Your task to perform on an android device: Open Google Chrome and click the shortcut for Amazon.com Image 0: 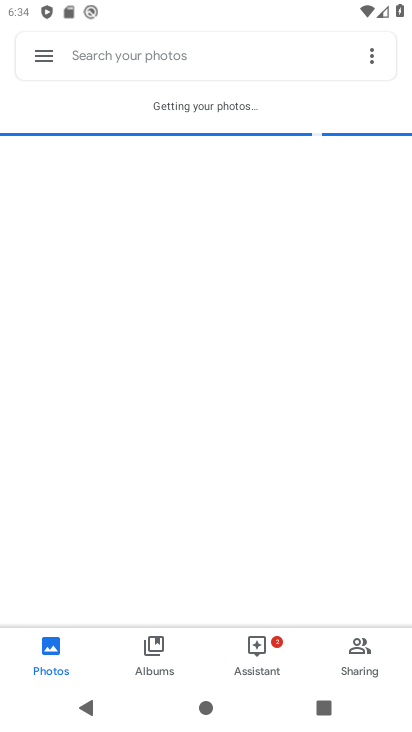
Step 0: press home button
Your task to perform on an android device: Open Google Chrome and click the shortcut for Amazon.com Image 1: 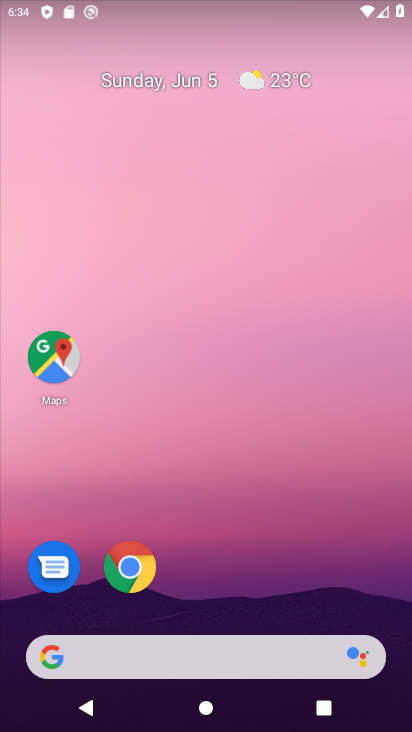
Step 1: drag from (389, 631) to (241, 33)
Your task to perform on an android device: Open Google Chrome and click the shortcut for Amazon.com Image 2: 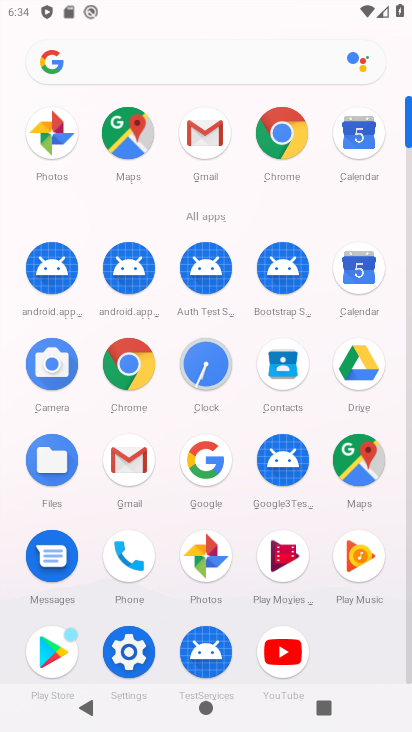
Step 2: click (278, 141)
Your task to perform on an android device: Open Google Chrome and click the shortcut for Amazon.com Image 3: 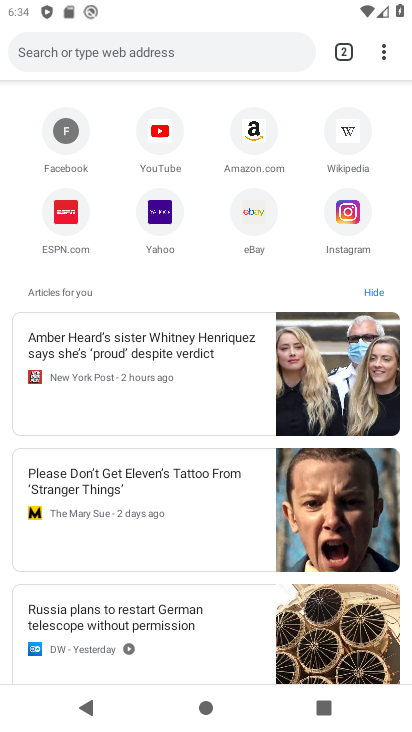
Step 3: click (261, 132)
Your task to perform on an android device: Open Google Chrome and click the shortcut for Amazon.com Image 4: 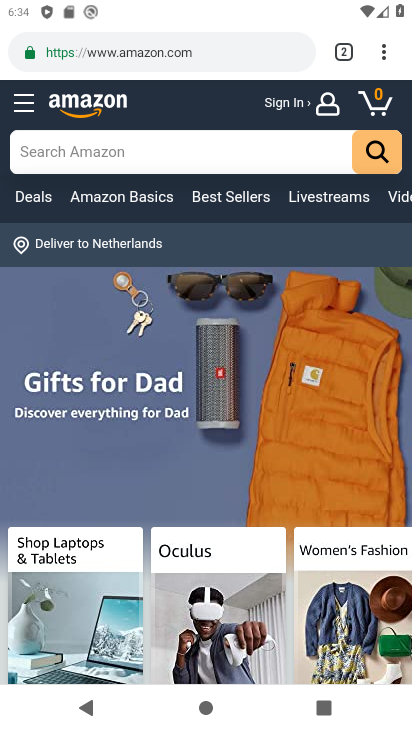
Step 4: task complete